Your task to perform on an android device: Open calendar and show me the second week of next month Image 0: 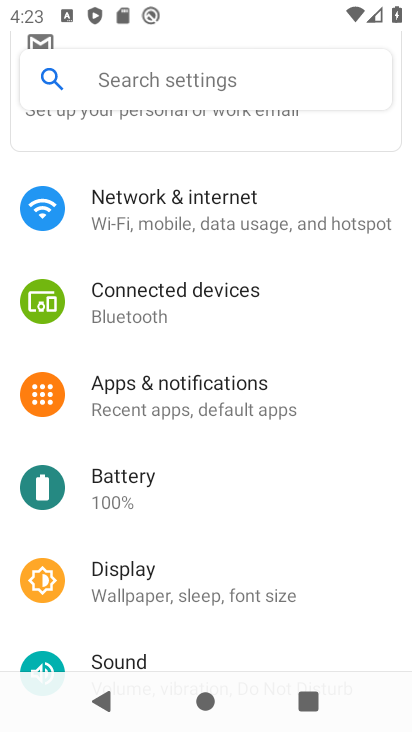
Step 0: press home button
Your task to perform on an android device: Open calendar and show me the second week of next month Image 1: 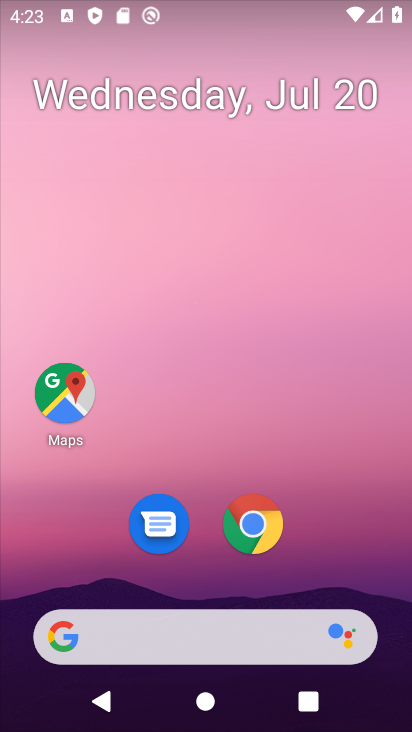
Step 1: drag from (354, 541) to (305, 88)
Your task to perform on an android device: Open calendar and show me the second week of next month Image 2: 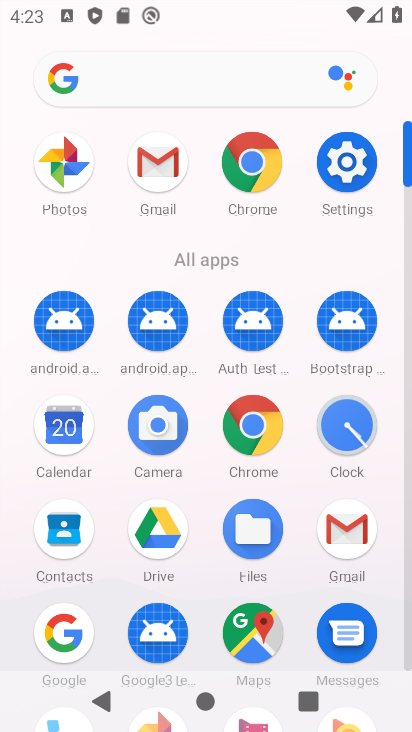
Step 2: click (60, 425)
Your task to perform on an android device: Open calendar and show me the second week of next month Image 3: 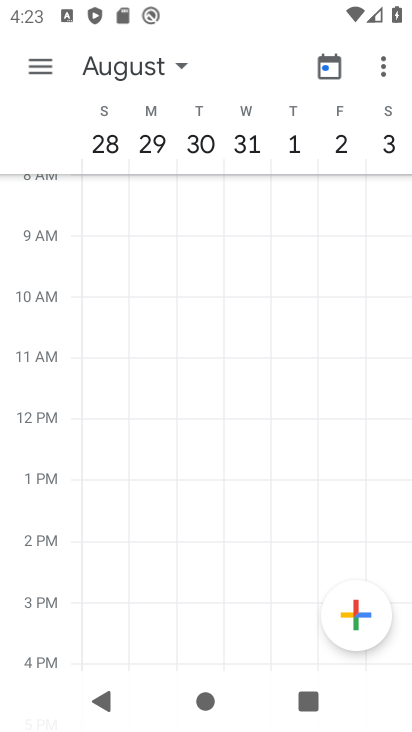
Step 3: task complete